Your task to perform on an android device: delete browsing data in the chrome app Image 0: 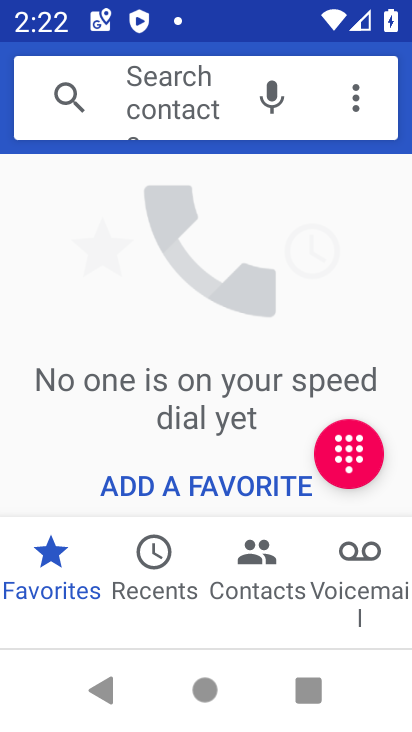
Step 0: press home button
Your task to perform on an android device: delete browsing data in the chrome app Image 1: 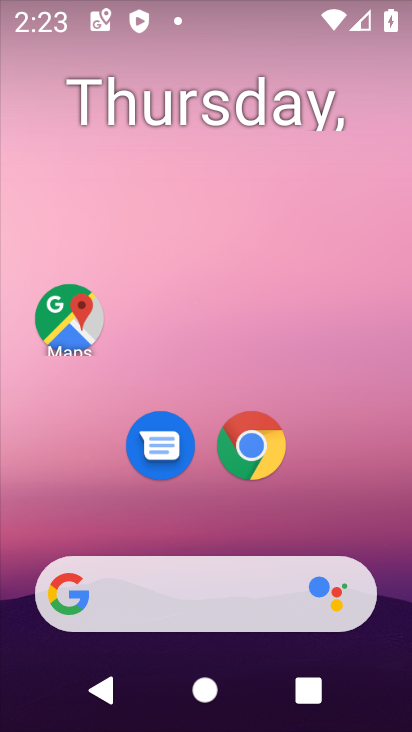
Step 1: click (244, 443)
Your task to perform on an android device: delete browsing data in the chrome app Image 2: 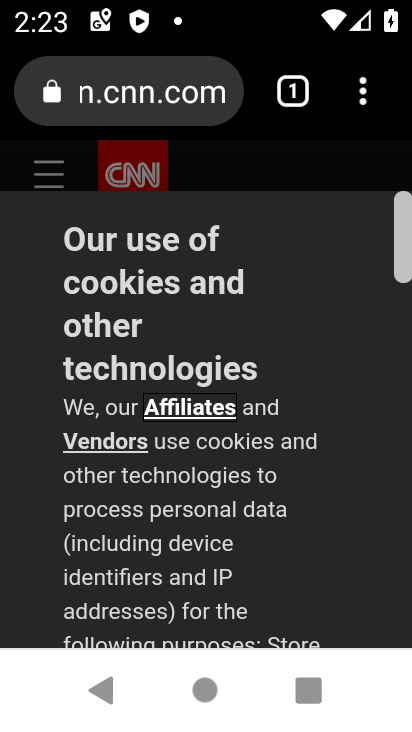
Step 2: click (361, 102)
Your task to perform on an android device: delete browsing data in the chrome app Image 3: 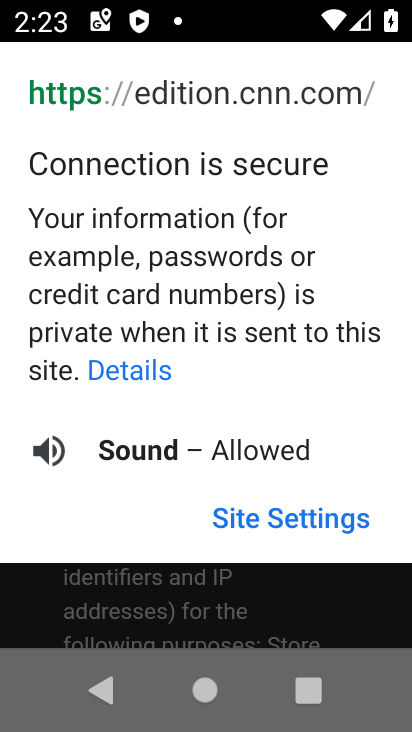
Step 3: press back button
Your task to perform on an android device: delete browsing data in the chrome app Image 4: 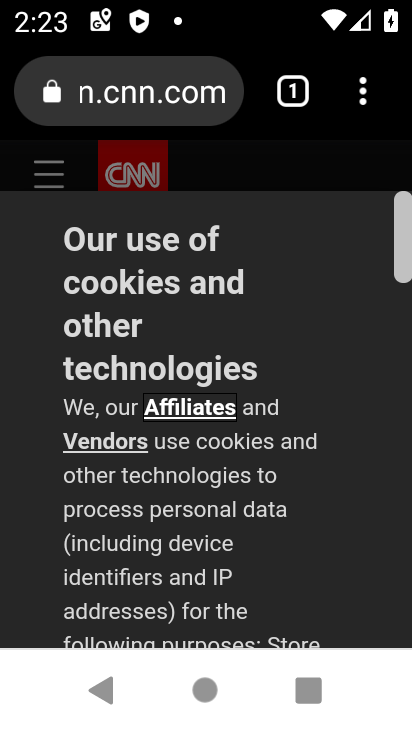
Step 4: click (360, 89)
Your task to perform on an android device: delete browsing data in the chrome app Image 5: 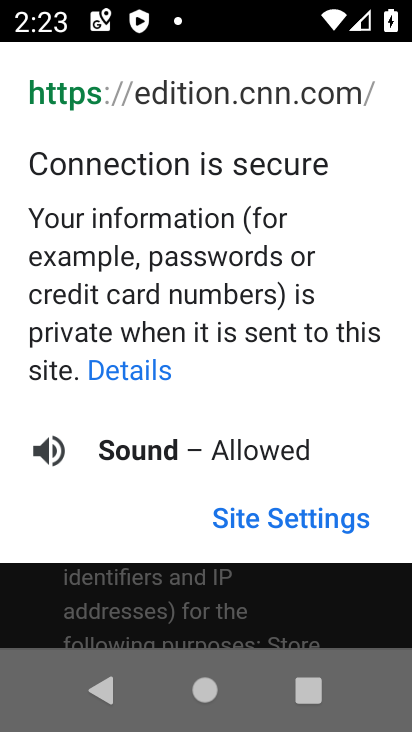
Step 5: press back button
Your task to perform on an android device: delete browsing data in the chrome app Image 6: 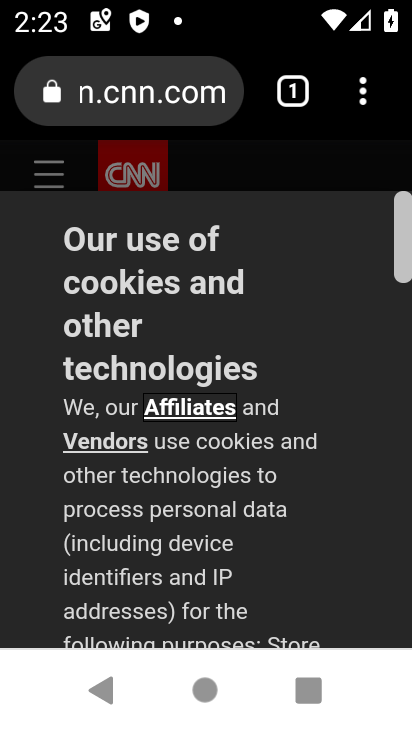
Step 6: click (371, 92)
Your task to perform on an android device: delete browsing data in the chrome app Image 7: 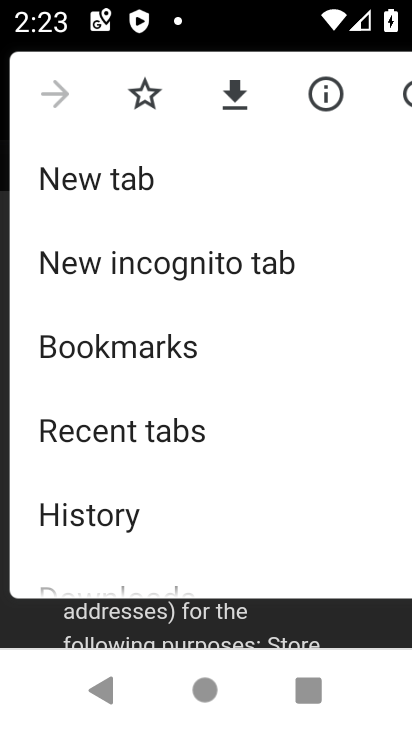
Step 7: click (92, 519)
Your task to perform on an android device: delete browsing data in the chrome app Image 8: 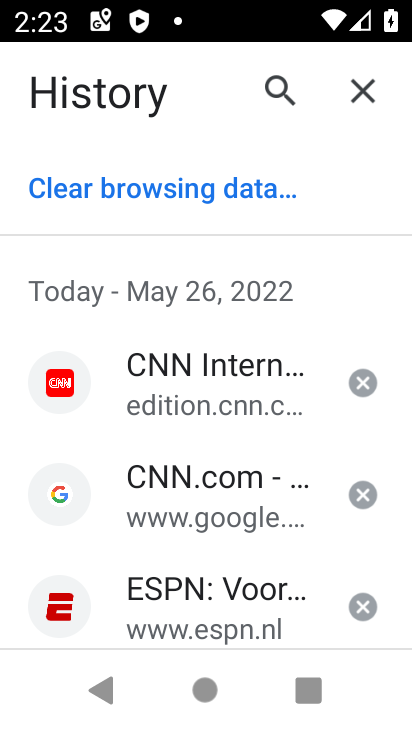
Step 8: click (204, 191)
Your task to perform on an android device: delete browsing data in the chrome app Image 9: 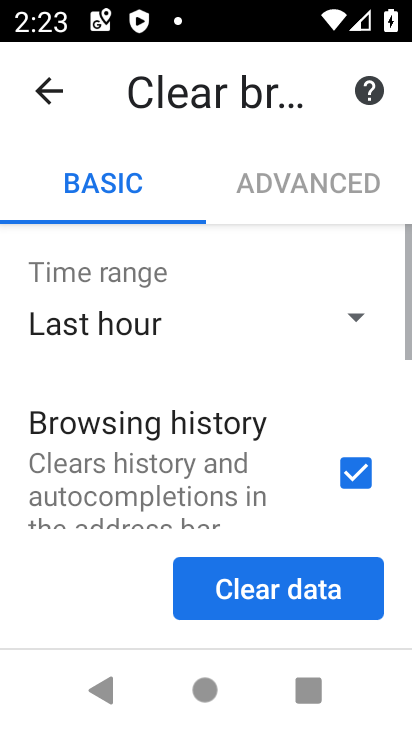
Step 9: click (253, 586)
Your task to perform on an android device: delete browsing data in the chrome app Image 10: 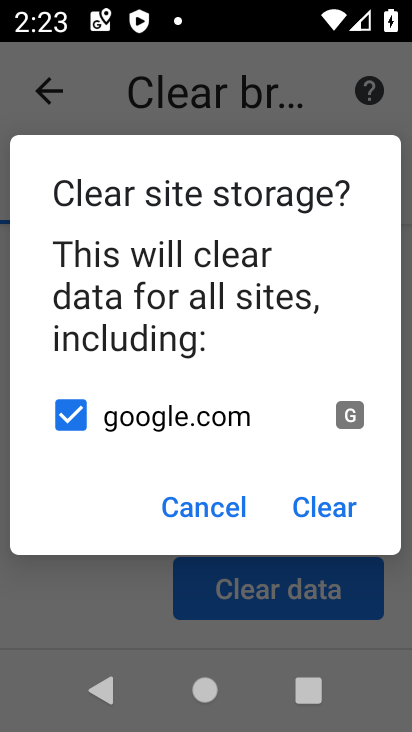
Step 10: click (335, 515)
Your task to perform on an android device: delete browsing data in the chrome app Image 11: 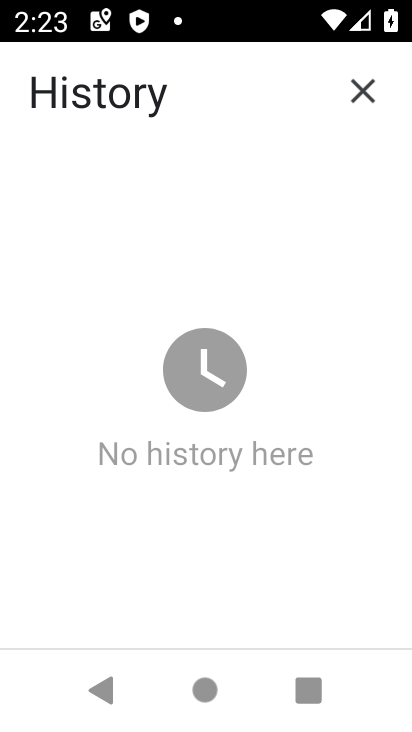
Step 11: task complete